Your task to perform on an android device: Open sound settings Image 0: 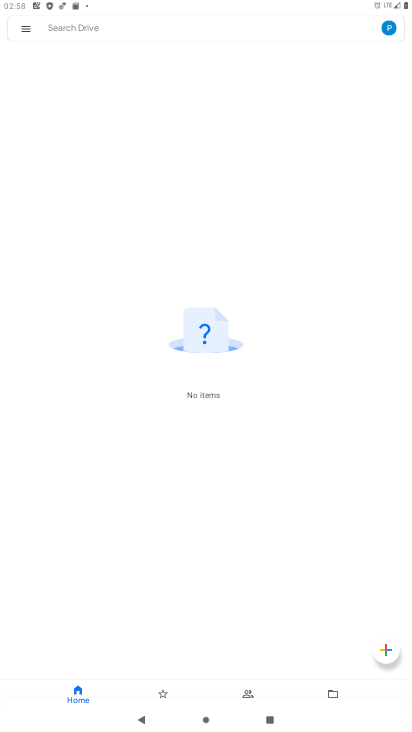
Step 0: press home button
Your task to perform on an android device: Open sound settings Image 1: 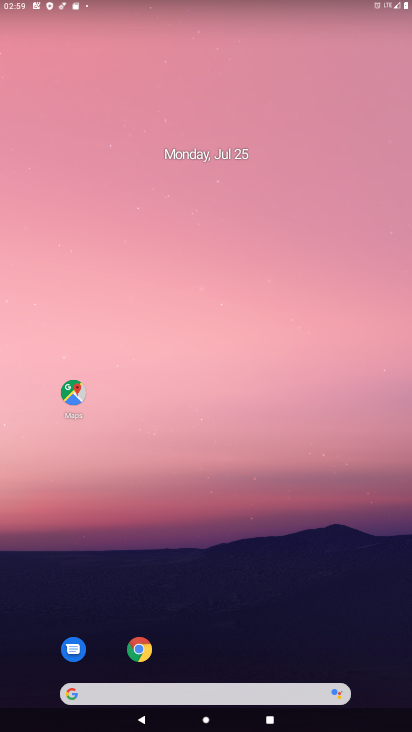
Step 1: drag from (353, 684) to (292, 260)
Your task to perform on an android device: Open sound settings Image 2: 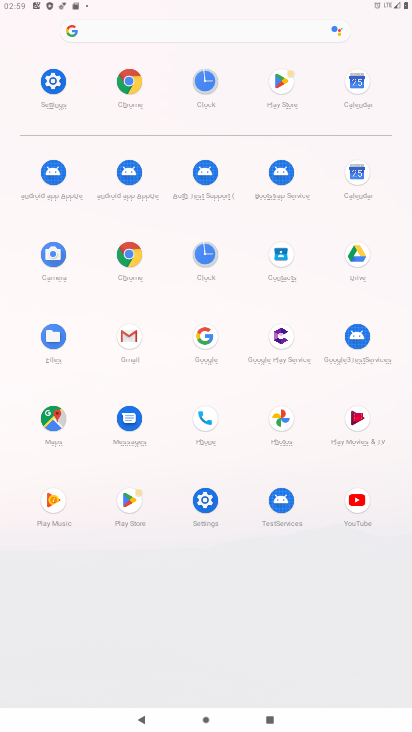
Step 2: click (204, 499)
Your task to perform on an android device: Open sound settings Image 3: 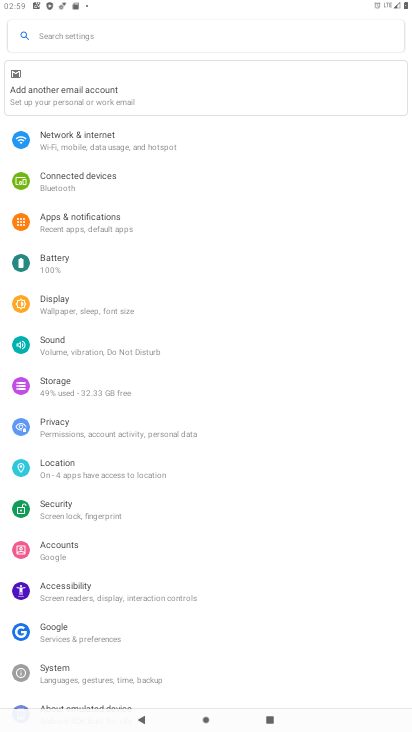
Step 3: click (62, 342)
Your task to perform on an android device: Open sound settings Image 4: 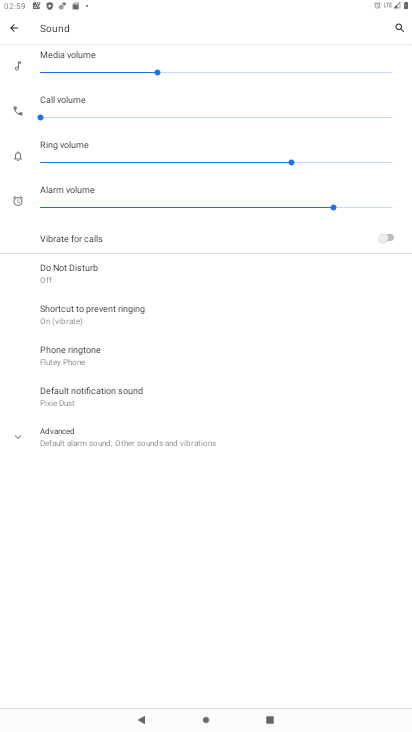
Step 4: task complete